Your task to perform on an android device: Open Android settings Image 0: 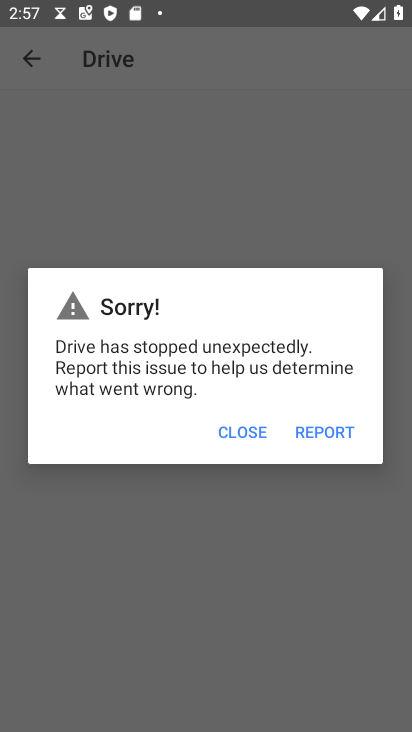
Step 0: press home button
Your task to perform on an android device: Open Android settings Image 1: 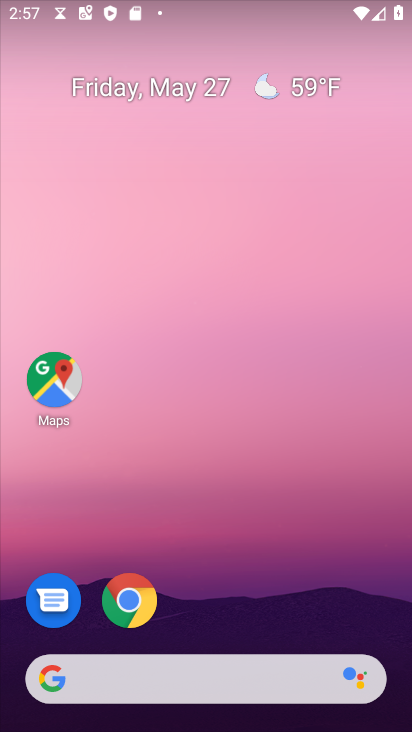
Step 1: drag from (241, 543) to (228, 90)
Your task to perform on an android device: Open Android settings Image 2: 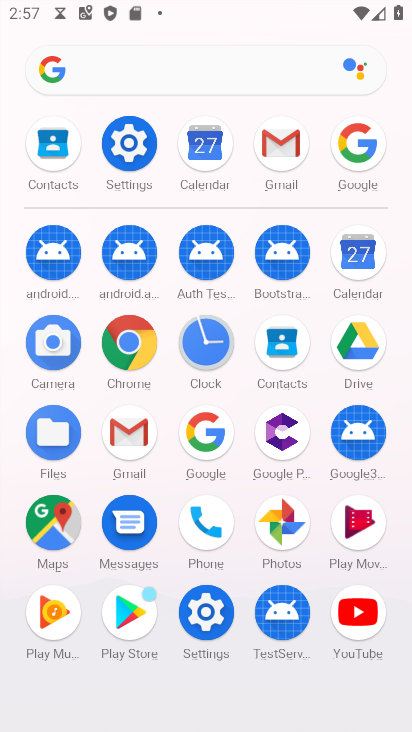
Step 2: click (129, 144)
Your task to perform on an android device: Open Android settings Image 3: 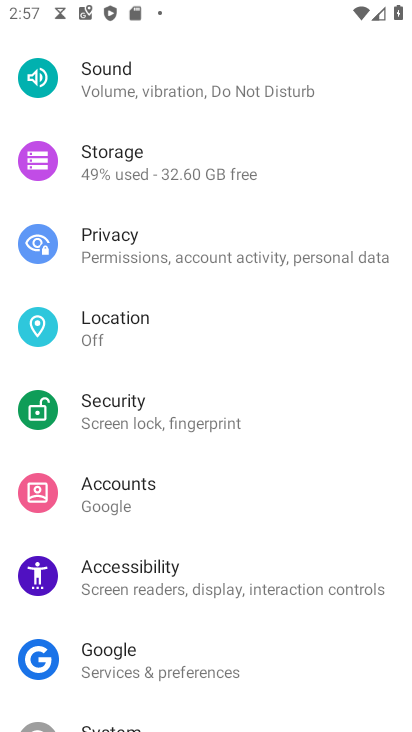
Step 3: task complete